Your task to perform on an android device: delete a single message in the gmail app Image 0: 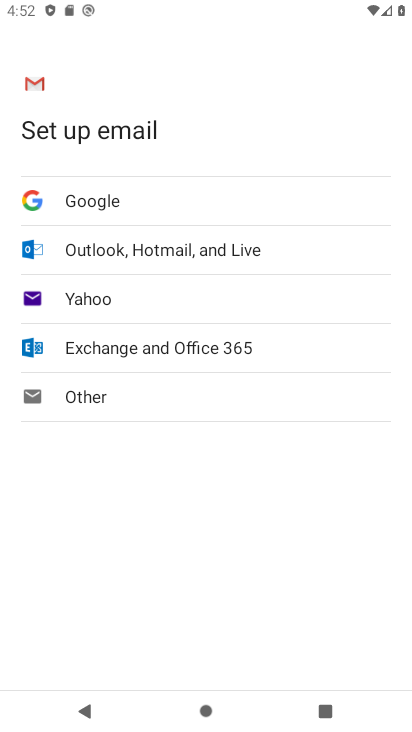
Step 0: press home button
Your task to perform on an android device: delete a single message in the gmail app Image 1: 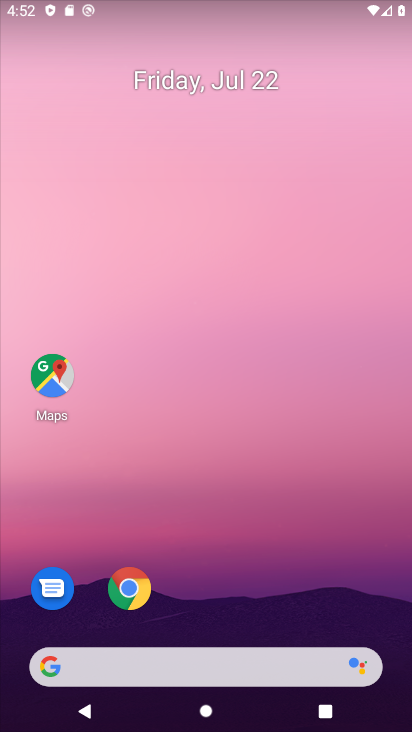
Step 1: drag from (236, 511) to (249, 254)
Your task to perform on an android device: delete a single message in the gmail app Image 2: 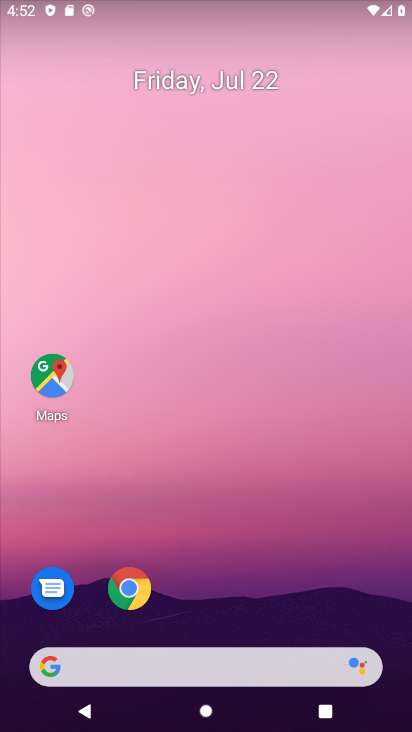
Step 2: drag from (260, 599) to (300, 122)
Your task to perform on an android device: delete a single message in the gmail app Image 3: 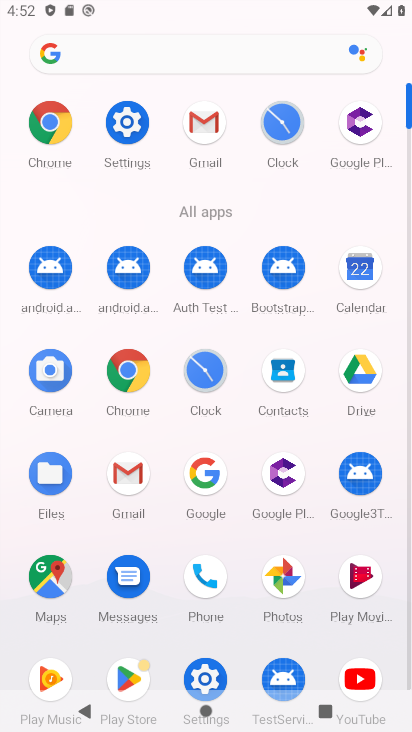
Step 3: click (208, 134)
Your task to perform on an android device: delete a single message in the gmail app Image 4: 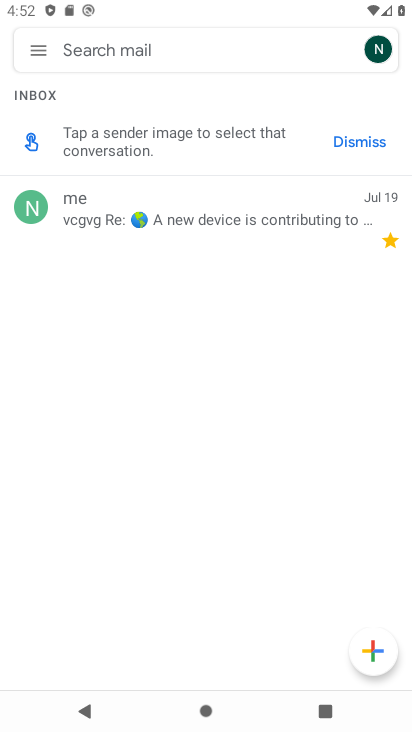
Step 4: click (30, 212)
Your task to perform on an android device: delete a single message in the gmail app Image 5: 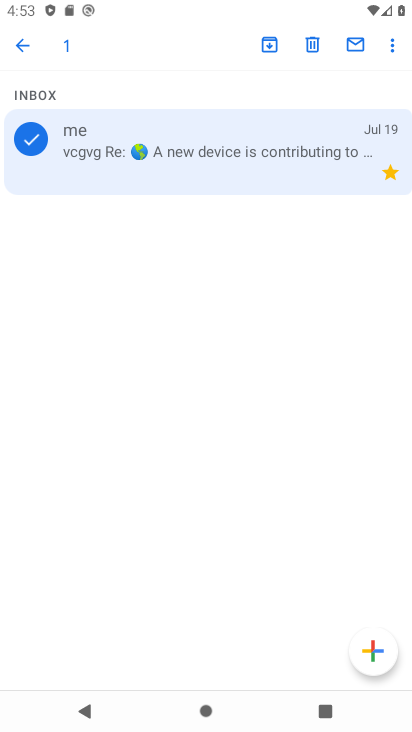
Step 5: click (314, 49)
Your task to perform on an android device: delete a single message in the gmail app Image 6: 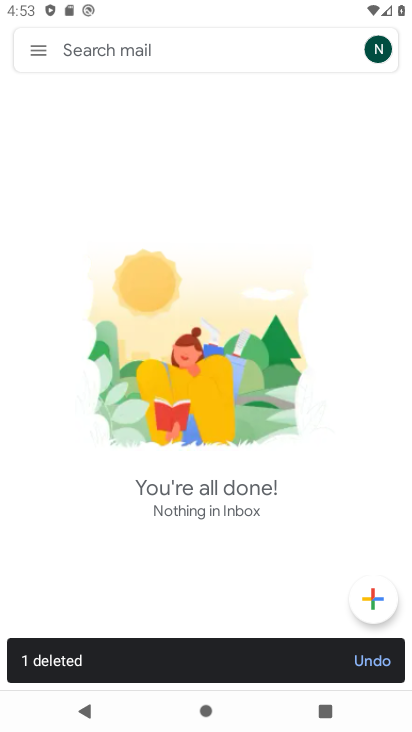
Step 6: task complete